Your task to perform on an android device: find which apps use the phone's location Image 0: 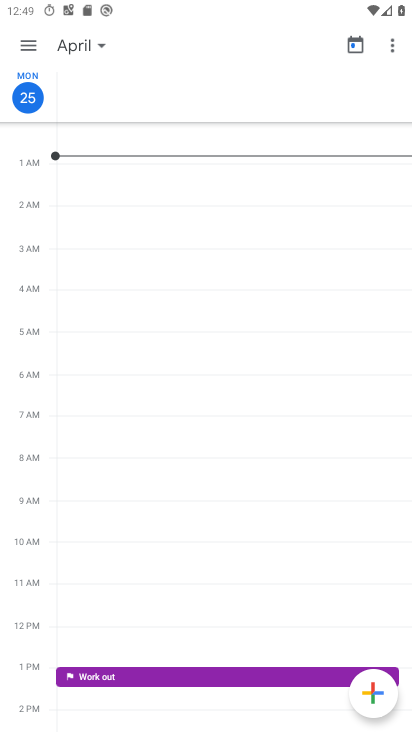
Step 0: press home button
Your task to perform on an android device: find which apps use the phone's location Image 1: 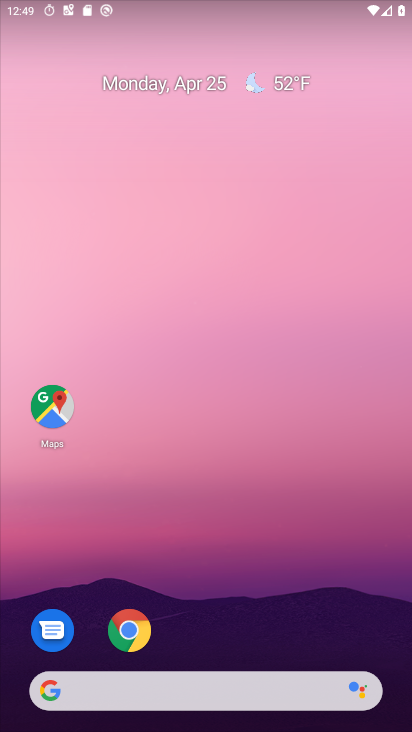
Step 1: drag from (157, 576) to (168, 134)
Your task to perform on an android device: find which apps use the phone's location Image 2: 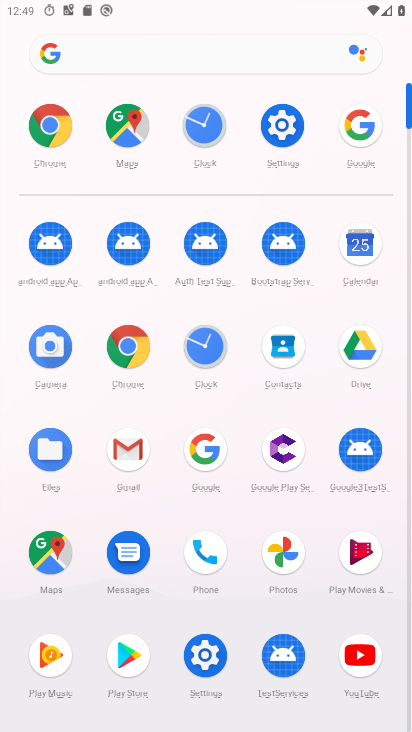
Step 2: click (283, 125)
Your task to perform on an android device: find which apps use the phone's location Image 3: 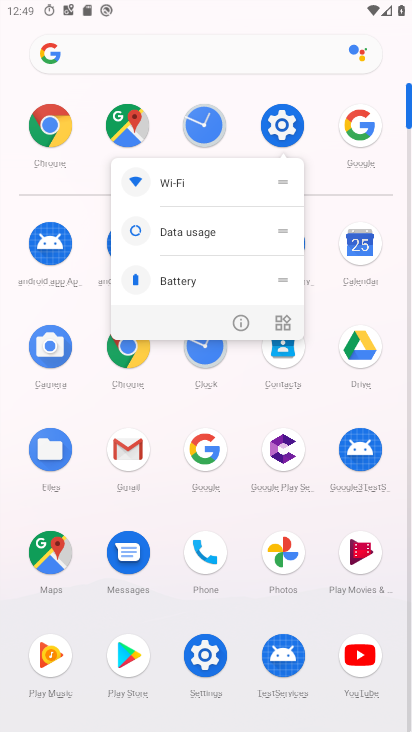
Step 3: click (241, 316)
Your task to perform on an android device: find which apps use the phone's location Image 4: 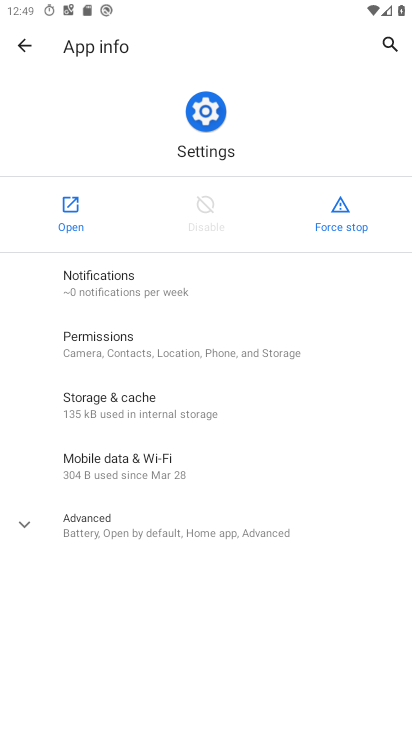
Step 4: click (64, 220)
Your task to perform on an android device: find which apps use the phone's location Image 5: 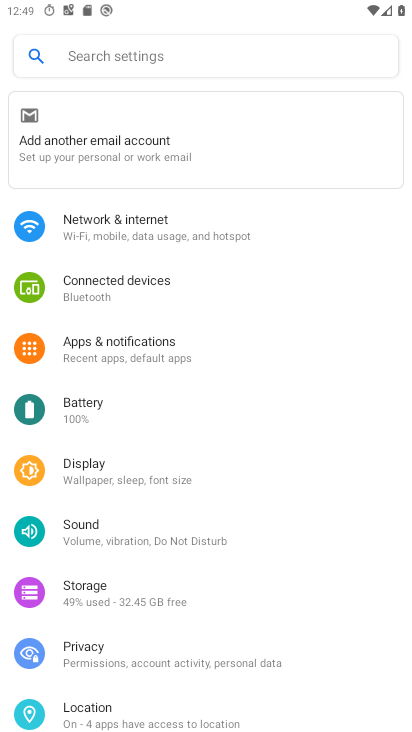
Step 5: drag from (183, 633) to (125, 312)
Your task to perform on an android device: find which apps use the phone's location Image 6: 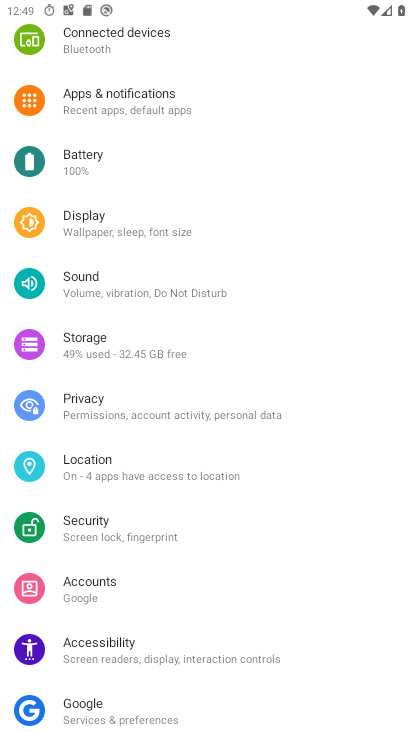
Step 6: click (189, 472)
Your task to perform on an android device: find which apps use the phone's location Image 7: 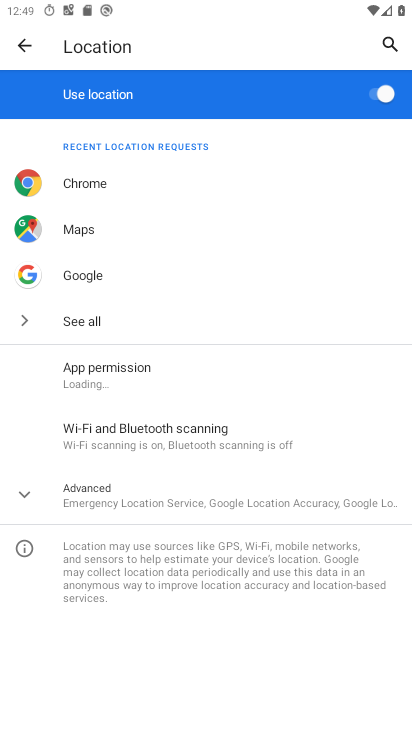
Step 7: click (161, 377)
Your task to perform on an android device: find which apps use the phone's location Image 8: 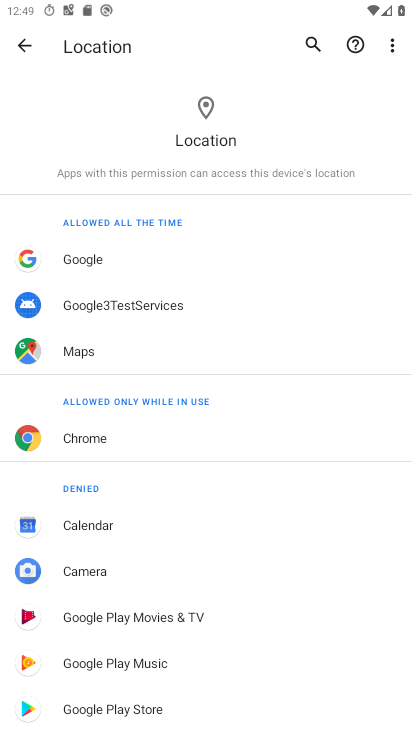
Step 8: task complete